Your task to perform on an android device: Open eBay Image 0: 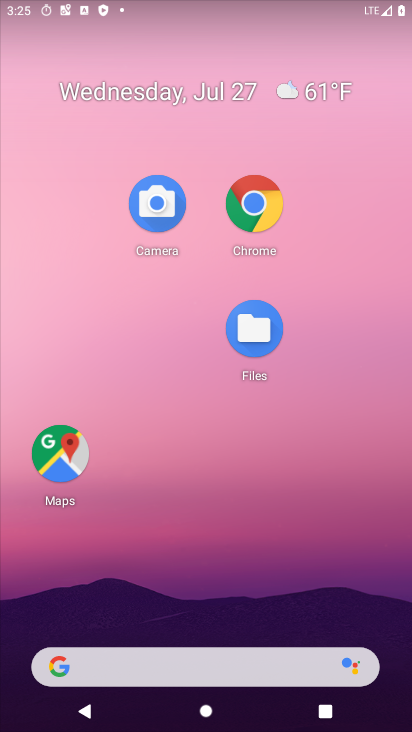
Step 0: click (229, 228)
Your task to perform on an android device: Open eBay Image 1: 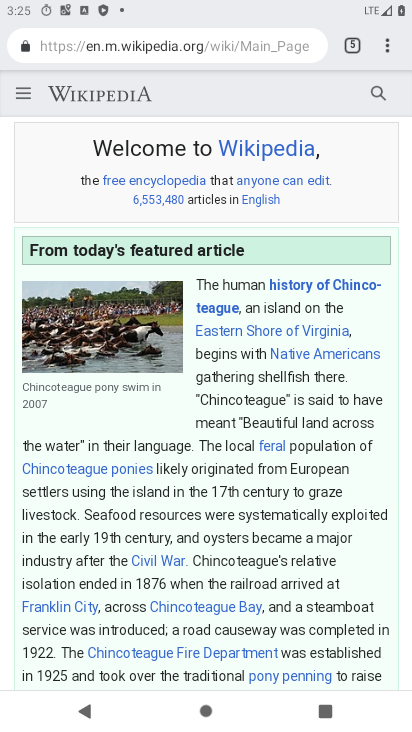
Step 1: click (348, 48)
Your task to perform on an android device: Open eBay Image 2: 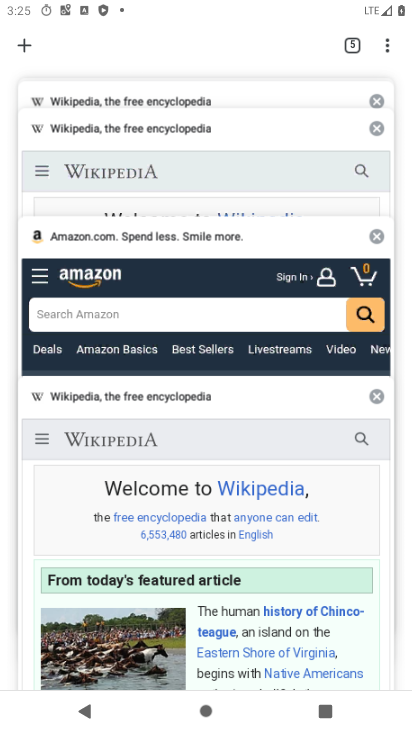
Step 2: click (30, 41)
Your task to perform on an android device: Open eBay Image 3: 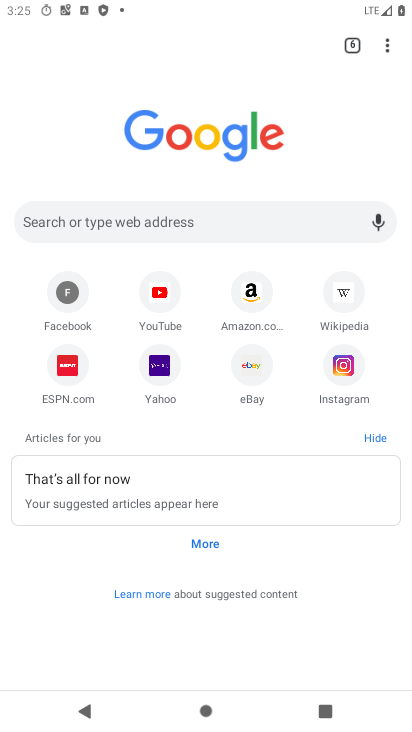
Step 3: click (247, 377)
Your task to perform on an android device: Open eBay Image 4: 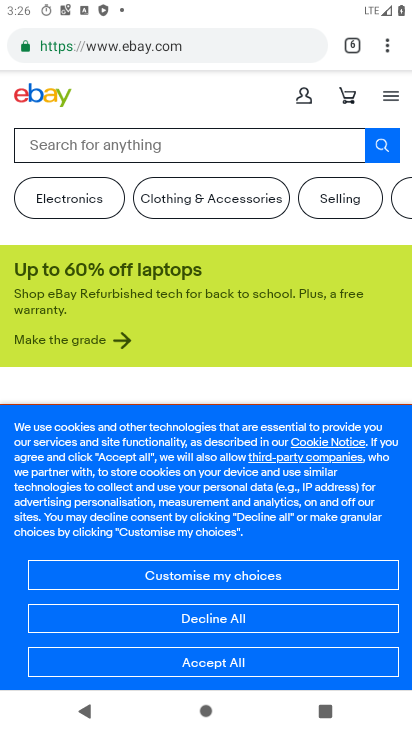
Step 4: task complete